Your task to perform on an android device: When is my next appointment? Image 0: 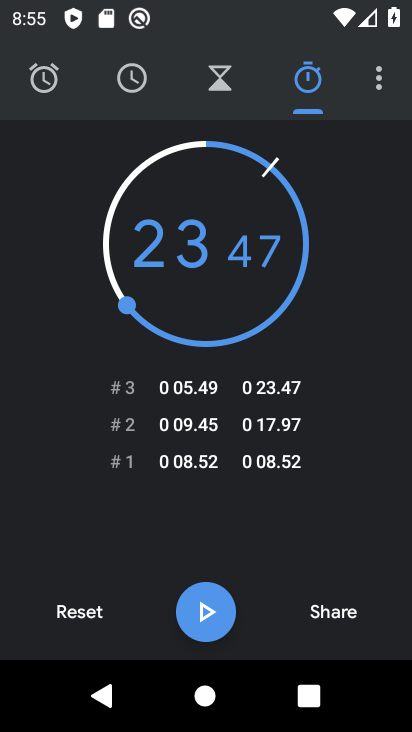
Step 0: press home button
Your task to perform on an android device: When is my next appointment? Image 1: 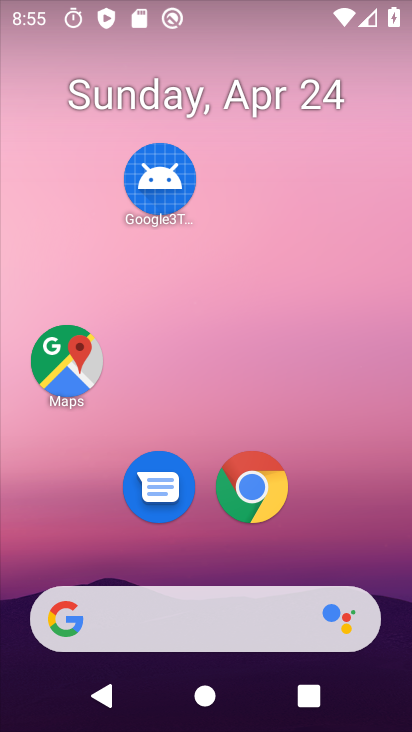
Step 1: drag from (333, 392) to (326, 130)
Your task to perform on an android device: When is my next appointment? Image 2: 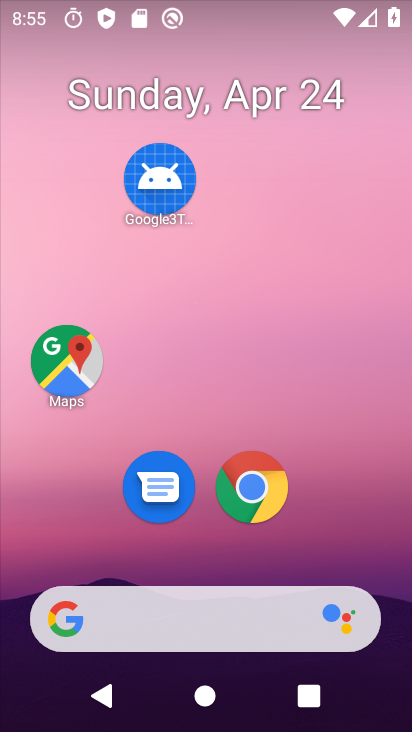
Step 2: drag from (367, 455) to (310, 107)
Your task to perform on an android device: When is my next appointment? Image 3: 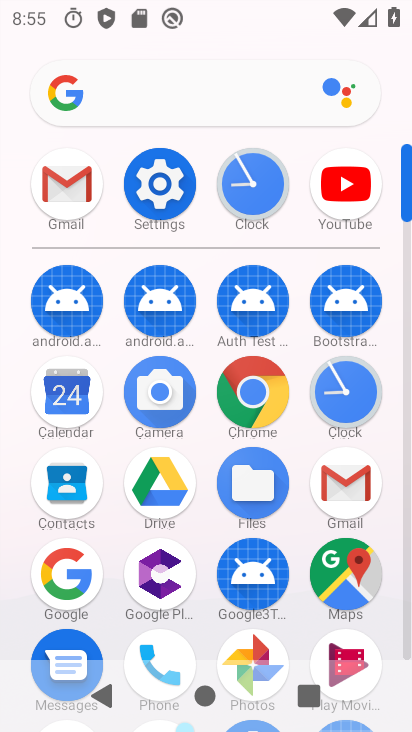
Step 3: click (69, 407)
Your task to perform on an android device: When is my next appointment? Image 4: 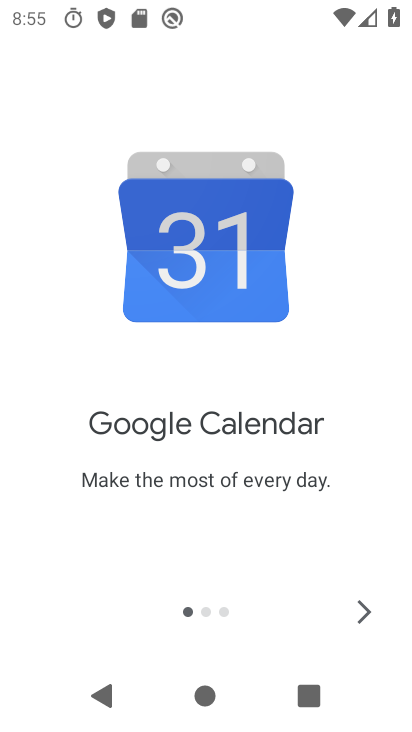
Step 4: click (355, 601)
Your task to perform on an android device: When is my next appointment? Image 5: 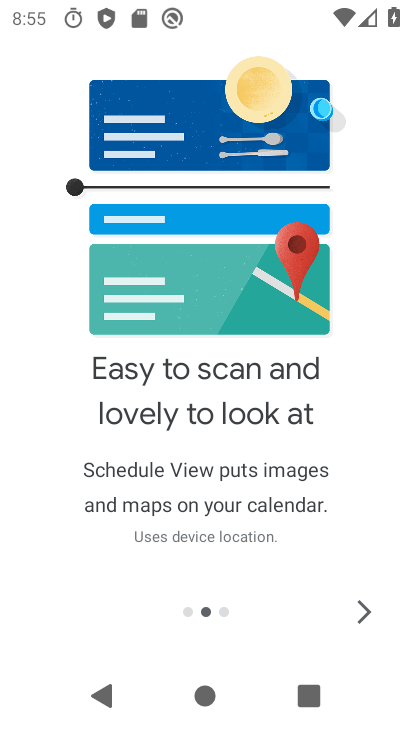
Step 5: click (355, 601)
Your task to perform on an android device: When is my next appointment? Image 6: 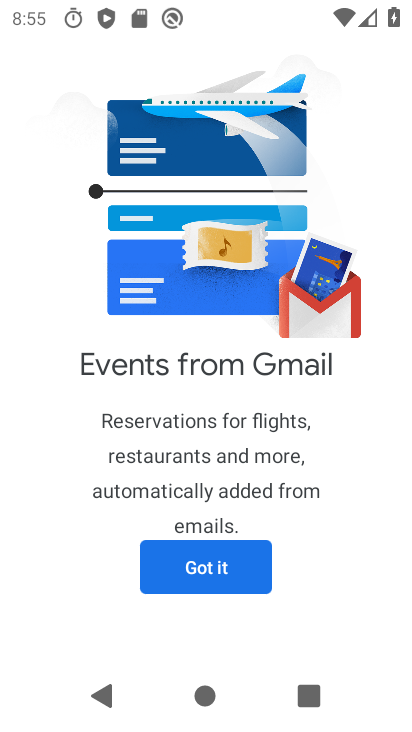
Step 6: click (143, 574)
Your task to perform on an android device: When is my next appointment? Image 7: 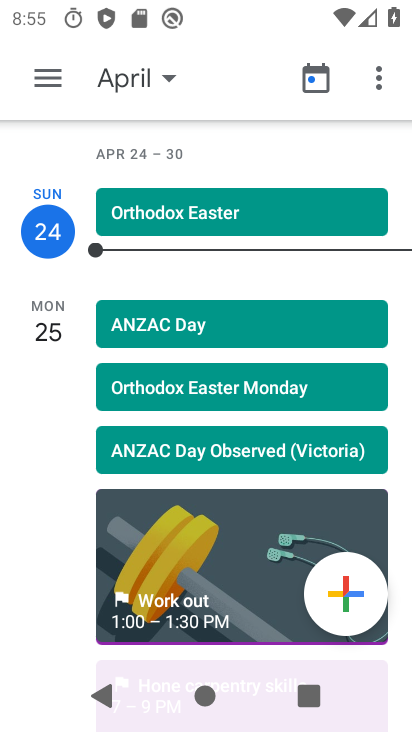
Step 7: click (122, 74)
Your task to perform on an android device: When is my next appointment? Image 8: 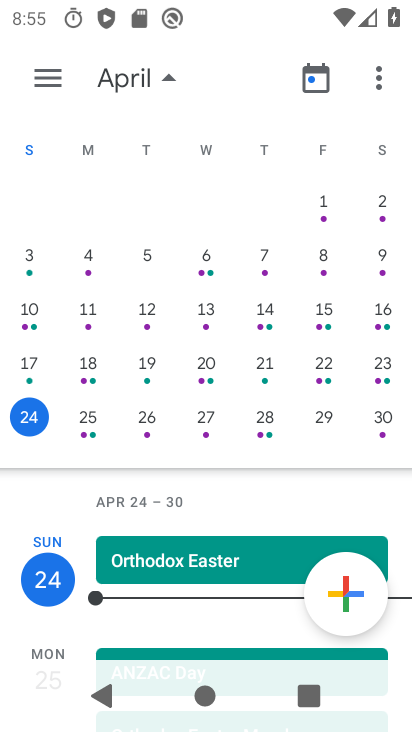
Step 8: click (25, 420)
Your task to perform on an android device: When is my next appointment? Image 9: 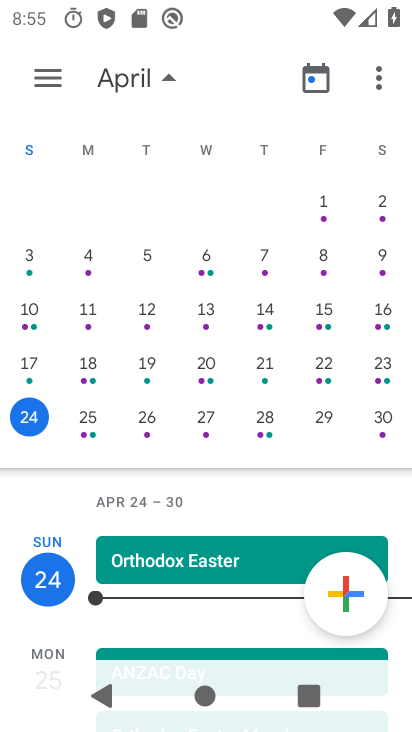
Step 9: drag from (147, 560) to (165, 216)
Your task to perform on an android device: When is my next appointment? Image 10: 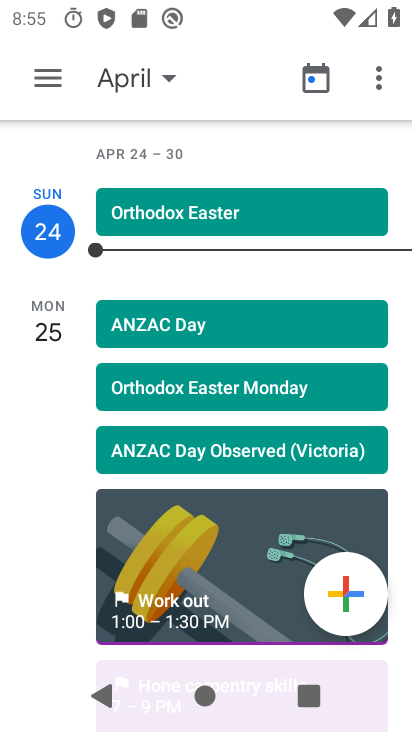
Step 10: drag from (176, 581) to (149, 297)
Your task to perform on an android device: When is my next appointment? Image 11: 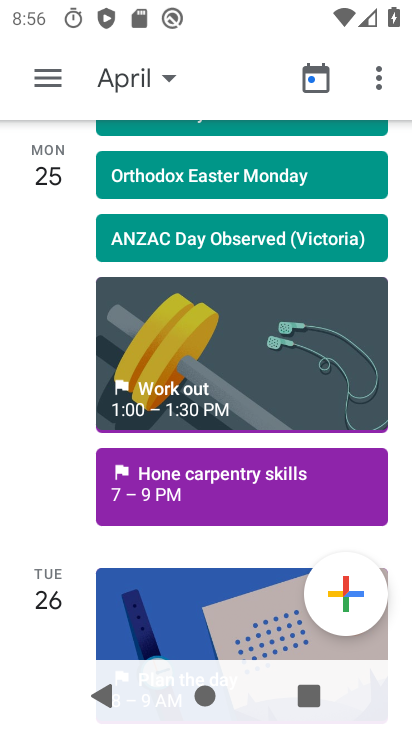
Step 11: click (203, 494)
Your task to perform on an android device: When is my next appointment? Image 12: 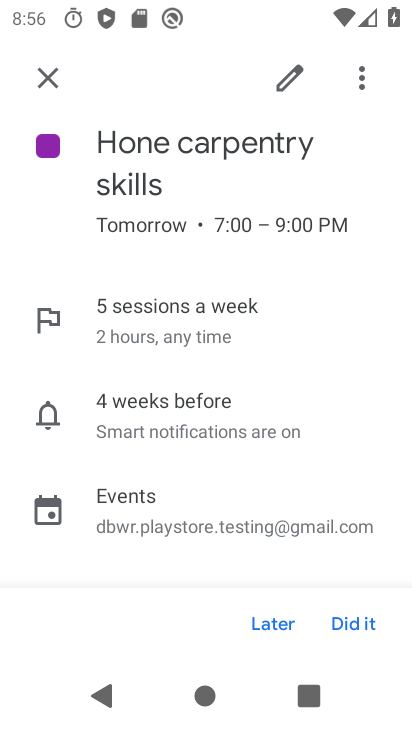
Step 12: task complete